Your task to perform on an android device: What's the weather going to be this weekend? Image 0: 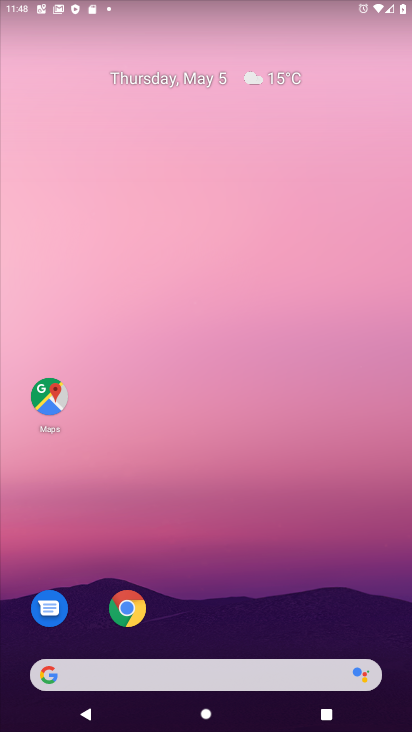
Step 0: click (132, 625)
Your task to perform on an android device: What's the weather going to be this weekend? Image 1: 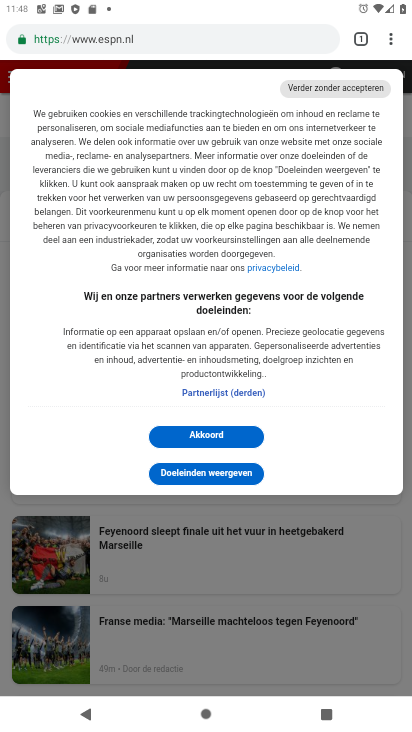
Step 1: type "whats the weather going to be this weekend"
Your task to perform on an android device: What's the weather going to be this weekend? Image 2: 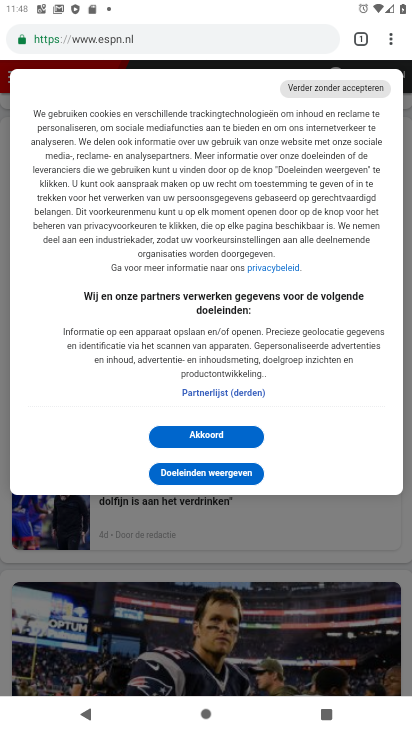
Step 2: click (236, 39)
Your task to perform on an android device: What's the weather going to be this weekend? Image 3: 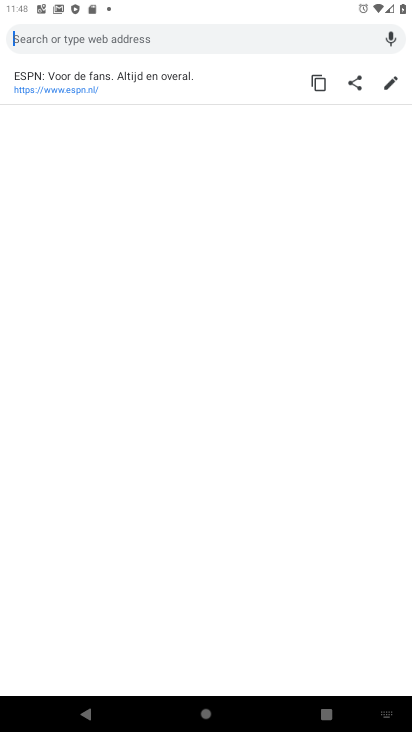
Step 3: type "What's the weather going to be this weekend?"
Your task to perform on an android device: What's the weather going to be this weekend? Image 4: 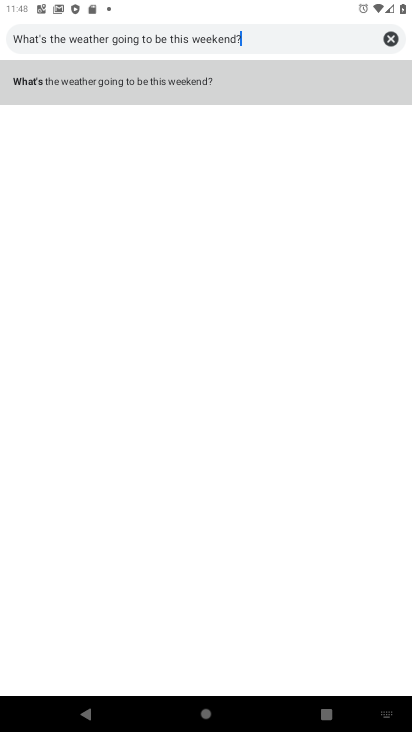
Step 4: click (185, 41)
Your task to perform on an android device: What's the weather going to be this weekend? Image 5: 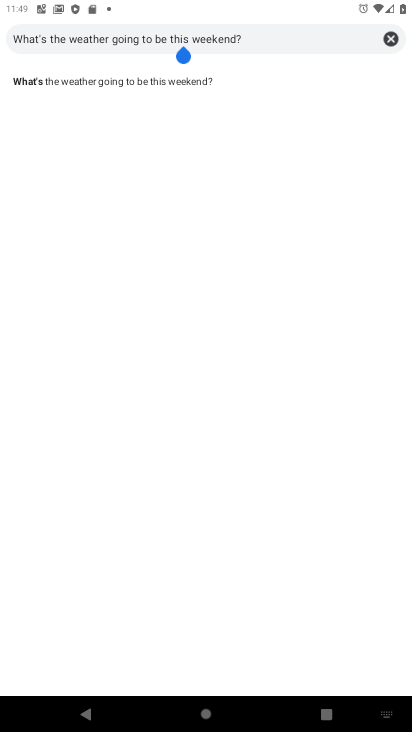
Step 5: click (219, 86)
Your task to perform on an android device: What's the weather going to be this weekend? Image 6: 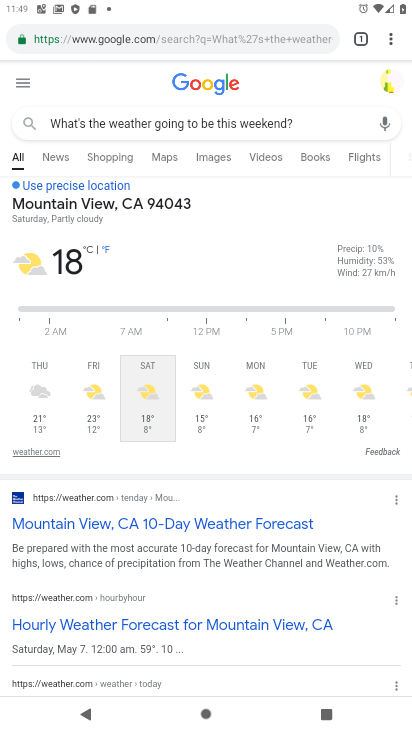
Step 6: task complete